Your task to perform on an android device: Go to Yahoo.com Image 0: 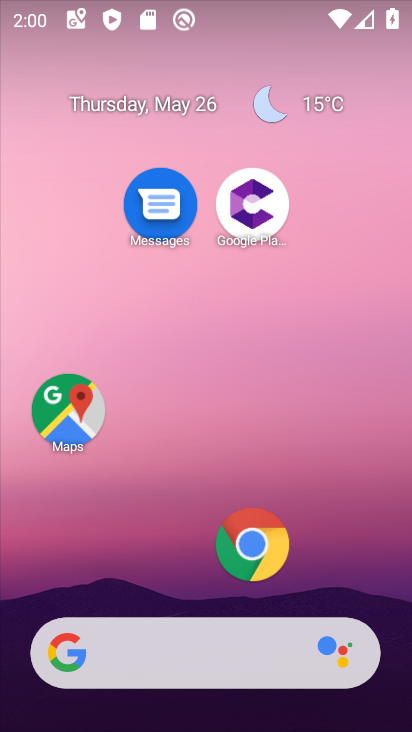
Step 0: click (206, 653)
Your task to perform on an android device: Go to Yahoo.com Image 1: 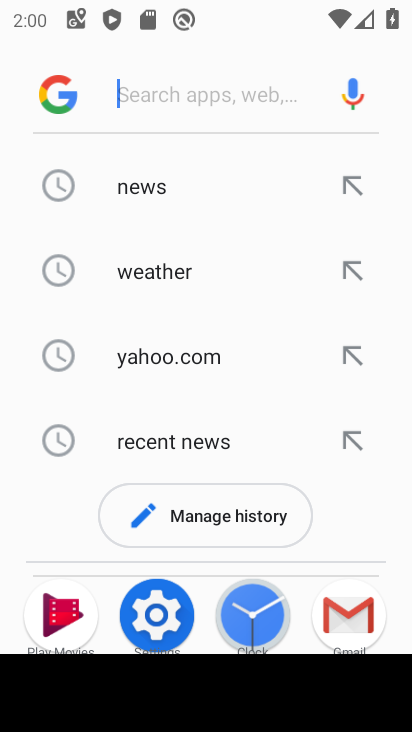
Step 1: click (140, 385)
Your task to perform on an android device: Go to Yahoo.com Image 2: 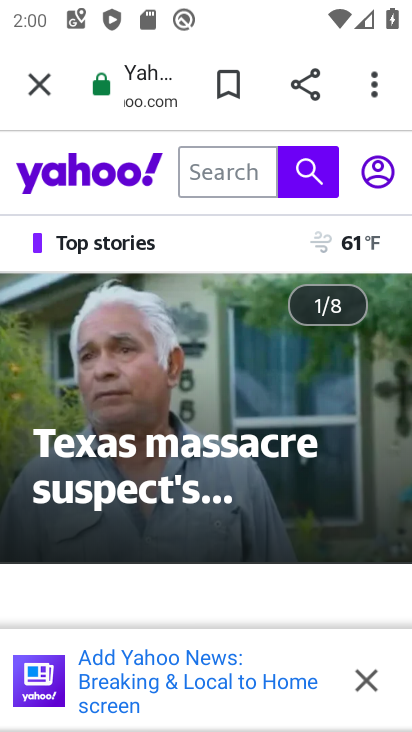
Step 2: task complete